Your task to perform on an android device: change the clock display to digital Image 0: 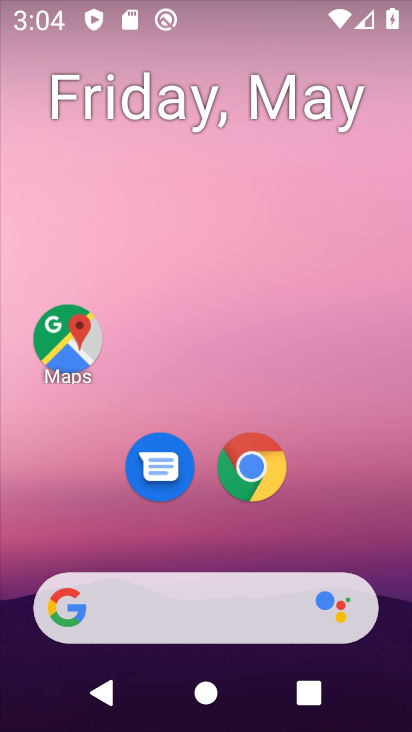
Step 0: drag from (332, 438) to (235, 1)
Your task to perform on an android device: change the clock display to digital Image 1: 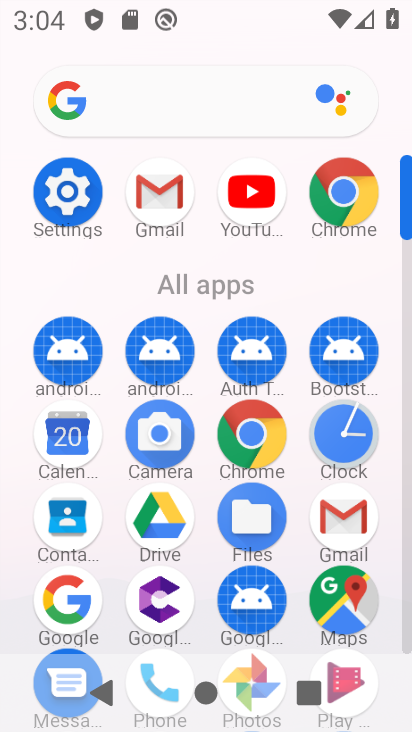
Step 1: click (346, 436)
Your task to perform on an android device: change the clock display to digital Image 2: 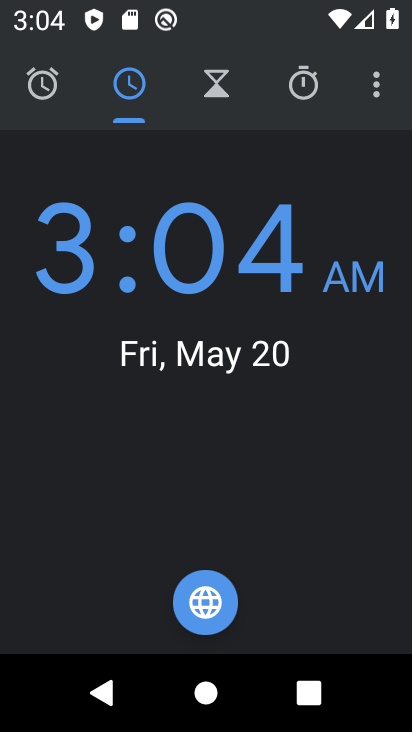
Step 2: click (379, 88)
Your task to perform on an android device: change the clock display to digital Image 3: 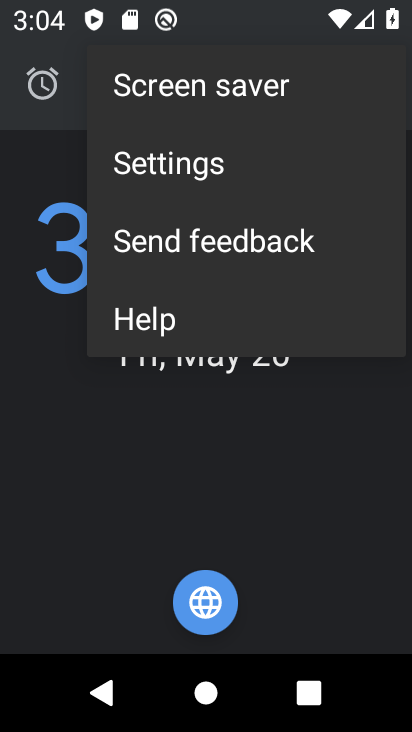
Step 3: click (197, 161)
Your task to perform on an android device: change the clock display to digital Image 4: 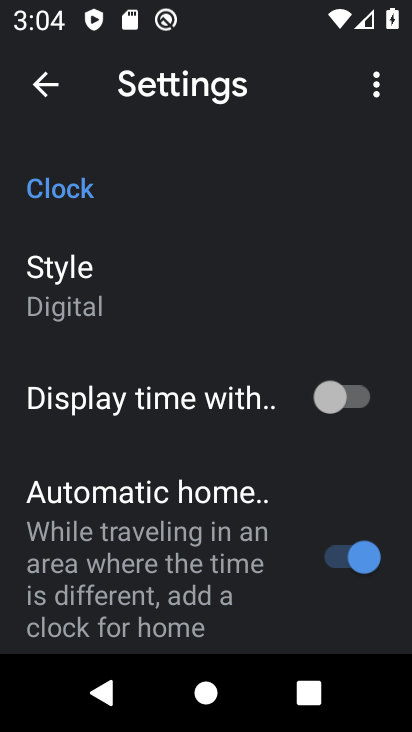
Step 4: task complete